Your task to perform on an android device: Do I have any events tomorrow? Image 0: 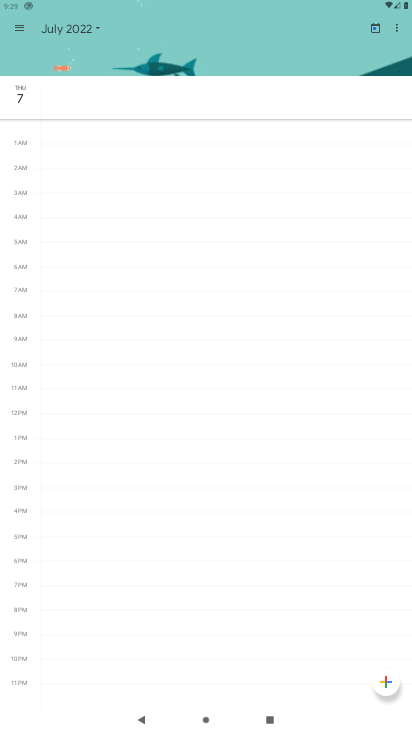
Step 0: task complete